Your task to perform on an android device: open app "Google Chat" (install if not already installed) Image 0: 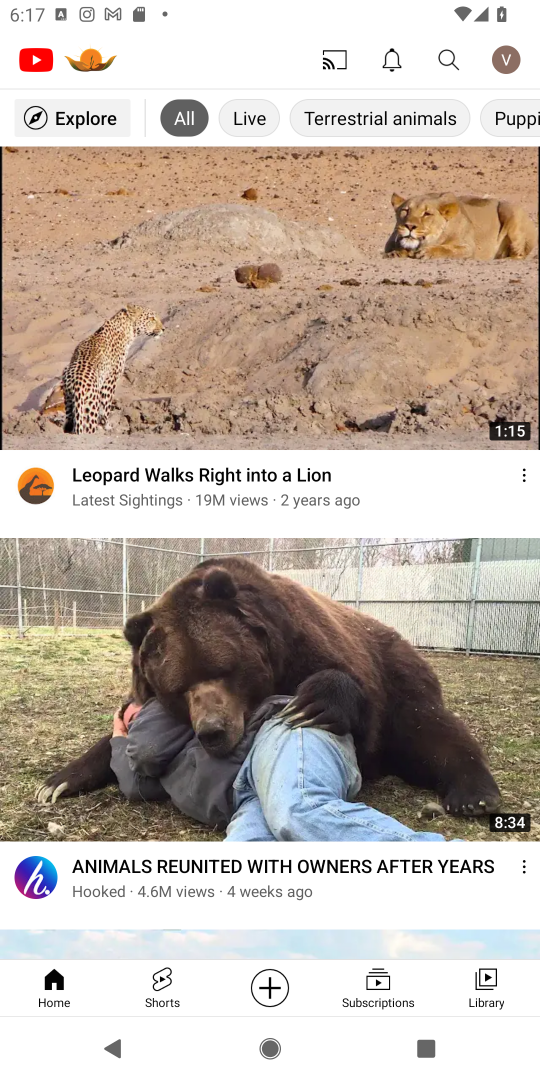
Step 0: press home button
Your task to perform on an android device: open app "Google Chat" (install if not already installed) Image 1: 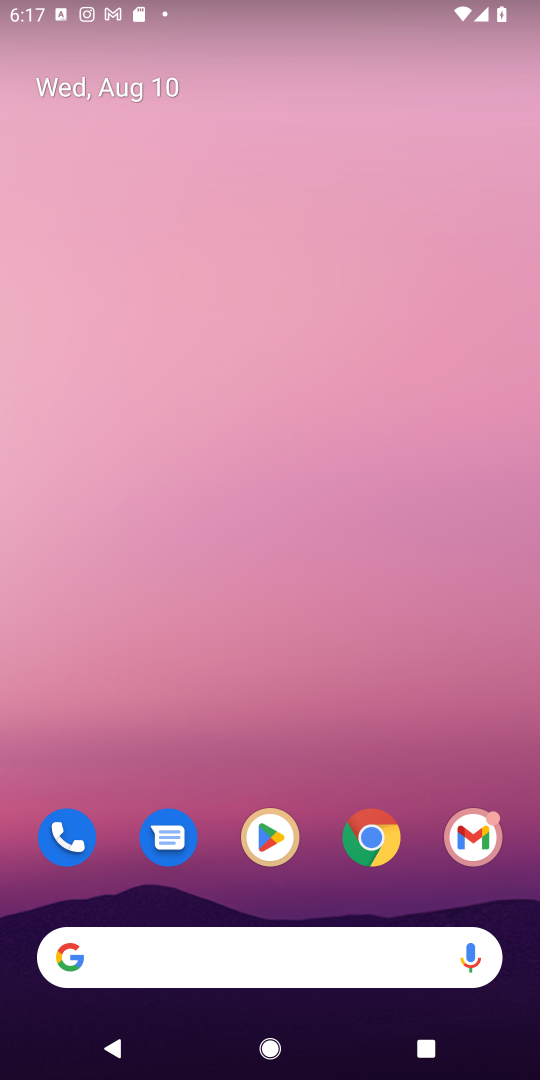
Step 1: click (273, 836)
Your task to perform on an android device: open app "Google Chat" (install if not already installed) Image 2: 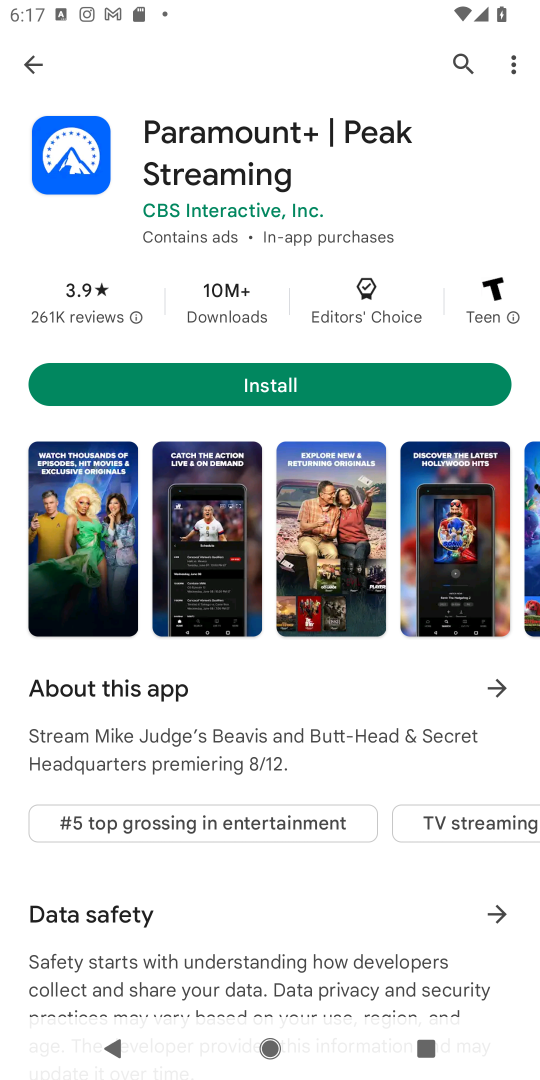
Step 2: click (461, 65)
Your task to perform on an android device: open app "Google Chat" (install if not already installed) Image 3: 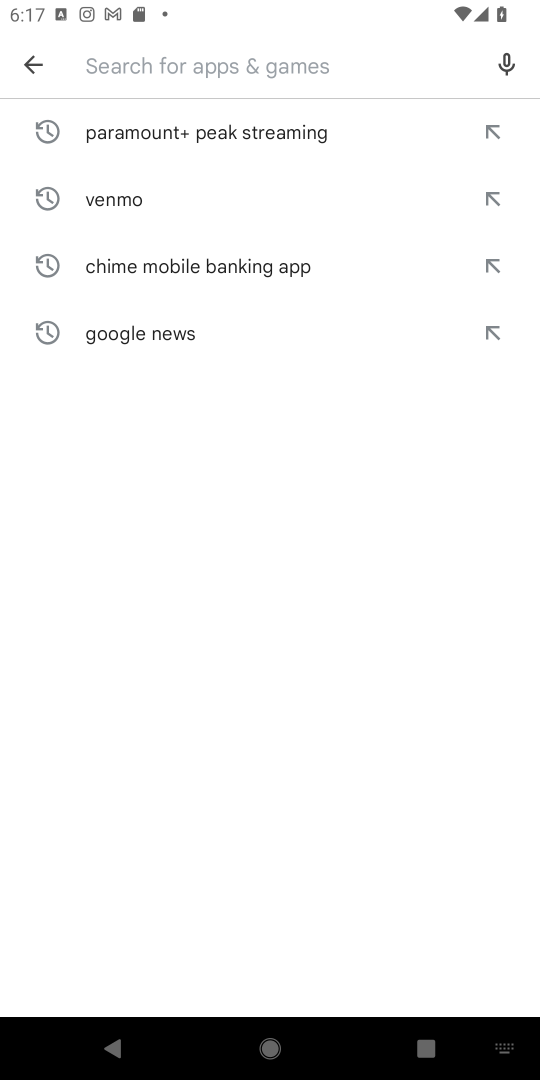
Step 3: type "Google Chat"
Your task to perform on an android device: open app "Google Chat" (install if not already installed) Image 4: 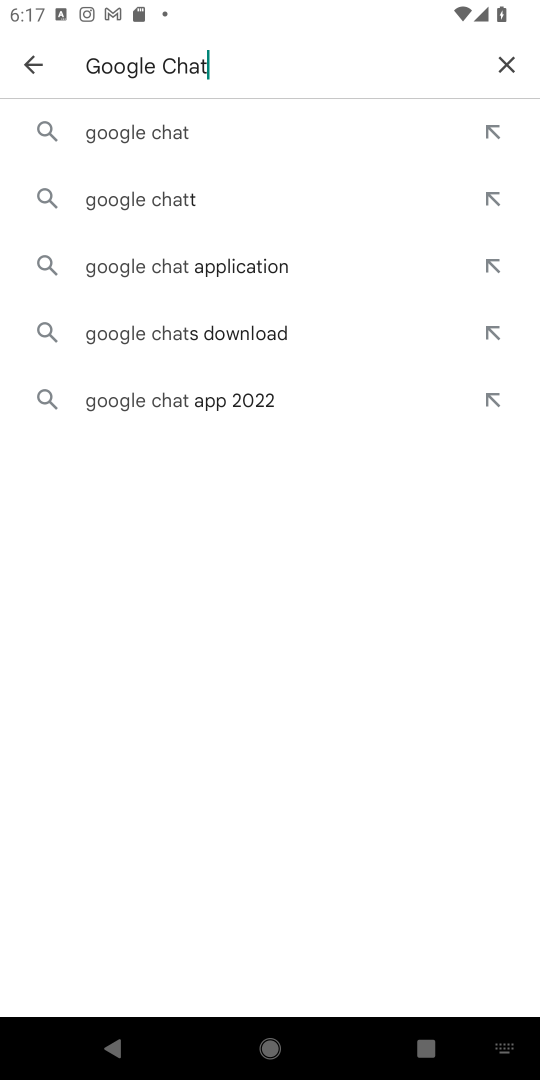
Step 4: click (177, 139)
Your task to perform on an android device: open app "Google Chat" (install if not already installed) Image 5: 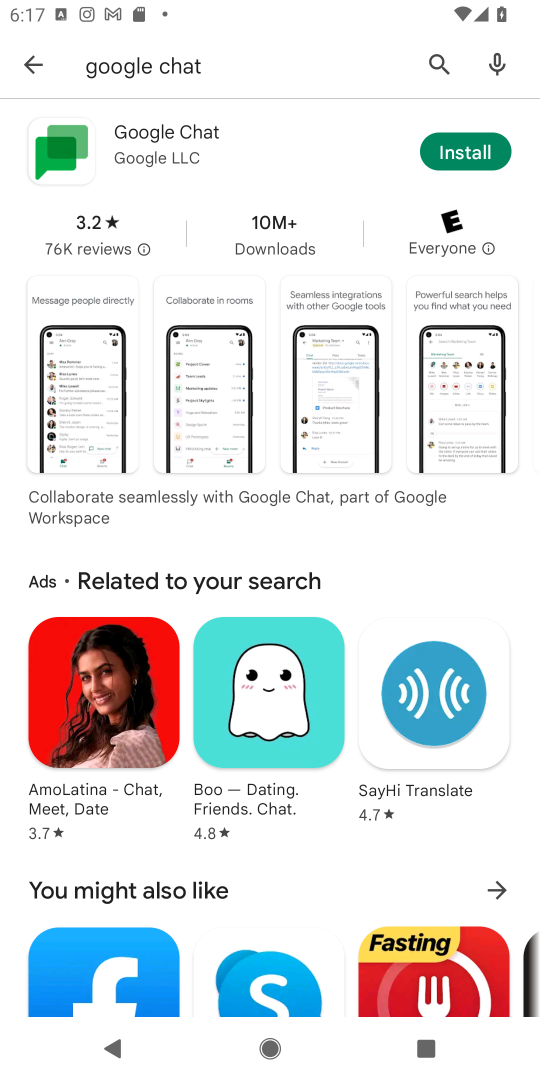
Step 5: click (454, 157)
Your task to perform on an android device: open app "Google Chat" (install if not already installed) Image 6: 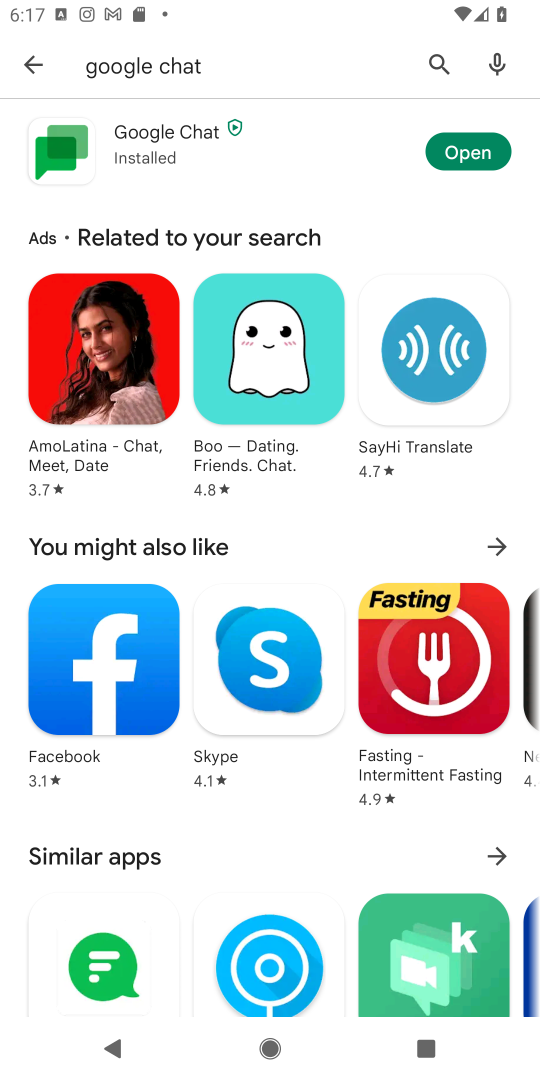
Step 6: click (472, 138)
Your task to perform on an android device: open app "Google Chat" (install if not already installed) Image 7: 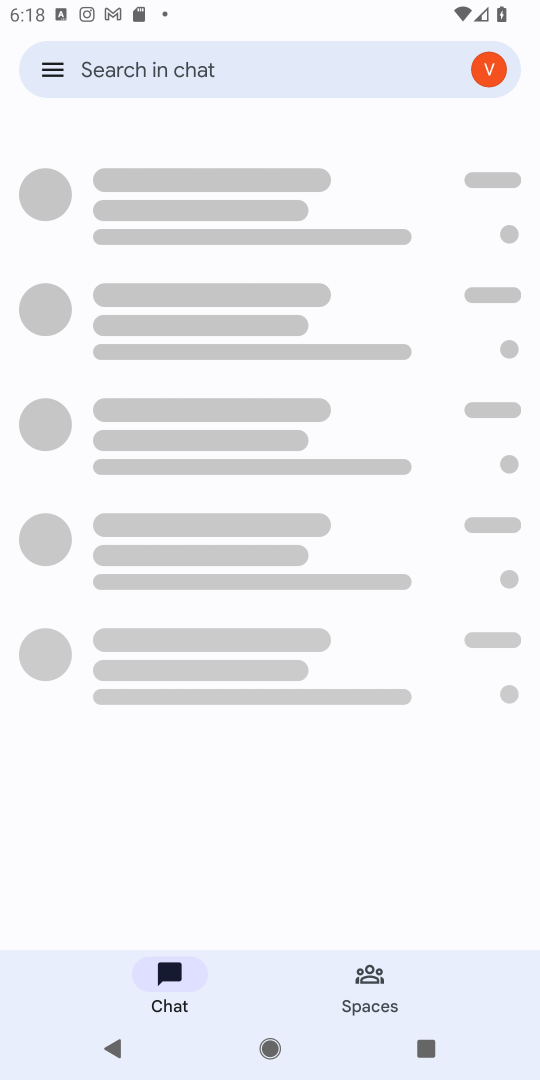
Step 7: task complete